Your task to perform on an android device: Open the calendar app, open the side menu, and click the "Day" option Image 0: 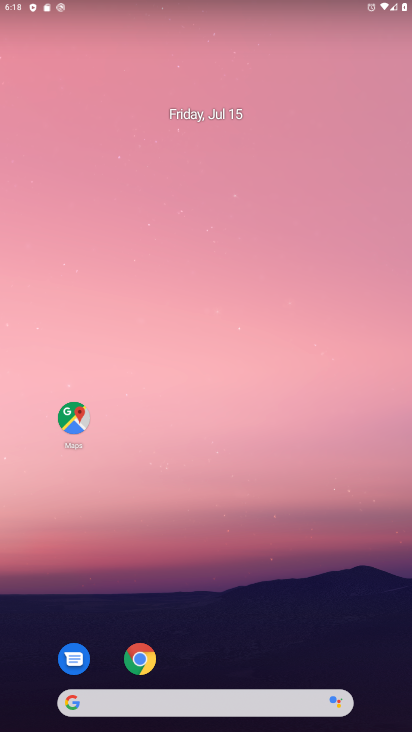
Step 0: drag from (397, 676) to (320, 67)
Your task to perform on an android device: Open the calendar app, open the side menu, and click the "Day" option Image 1: 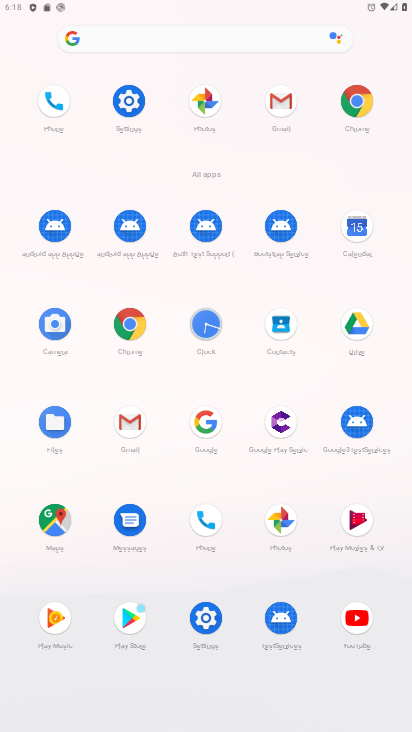
Step 1: click (355, 226)
Your task to perform on an android device: Open the calendar app, open the side menu, and click the "Day" option Image 2: 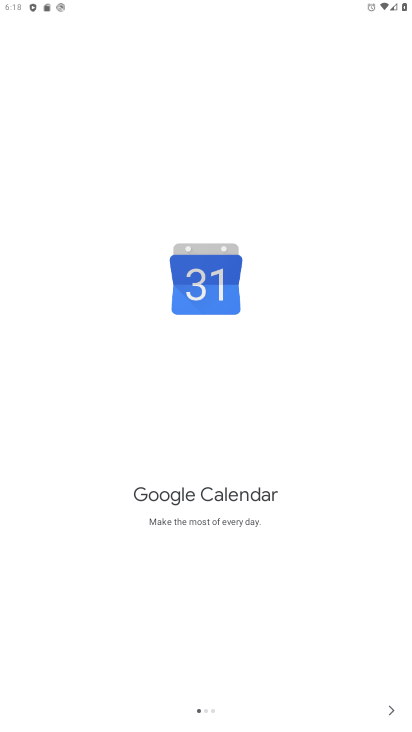
Step 2: click (391, 711)
Your task to perform on an android device: Open the calendar app, open the side menu, and click the "Day" option Image 3: 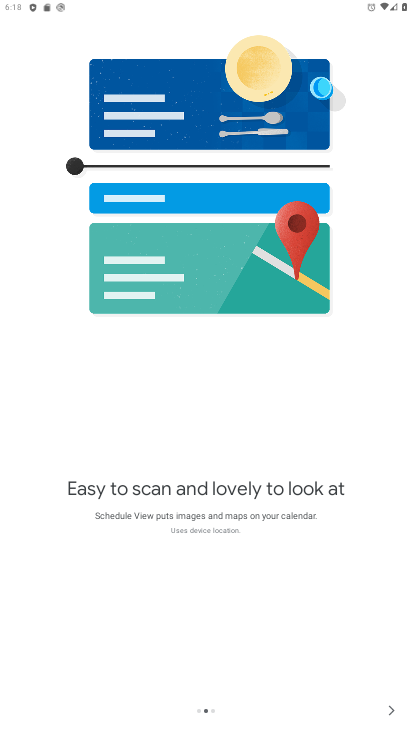
Step 3: click (387, 706)
Your task to perform on an android device: Open the calendar app, open the side menu, and click the "Day" option Image 4: 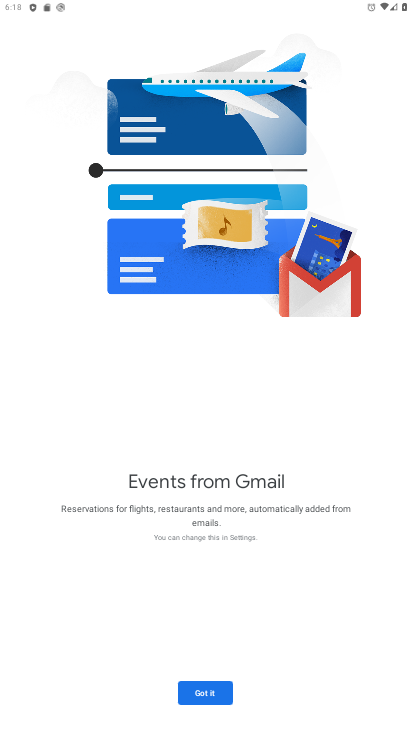
Step 4: click (209, 695)
Your task to perform on an android device: Open the calendar app, open the side menu, and click the "Day" option Image 5: 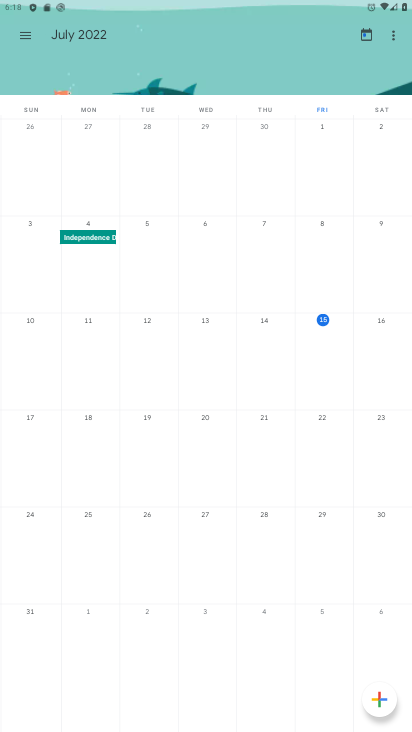
Step 5: click (19, 30)
Your task to perform on an android device: Open the calendar app, open the side menu, and click the "Day" option Image 6: 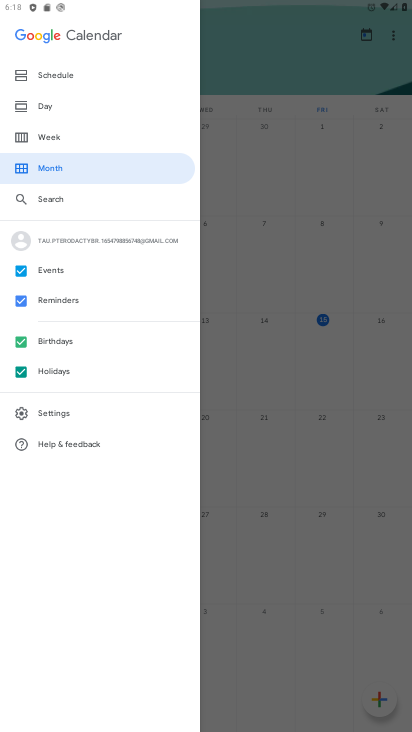
Step 6: click (51, 104)
Your task to perform on an android device: Open the calendar app, open the side menu, and click the "Day" option Image 7: 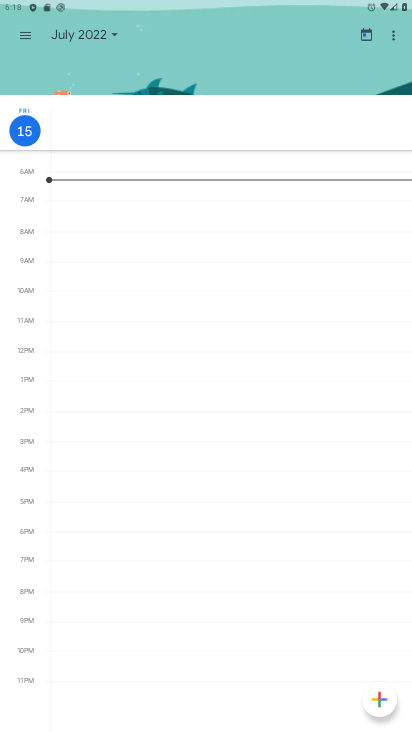
Step 7: task complete